Your task to perform on an android device: turn off priority inbox in the gmail app Image 0: 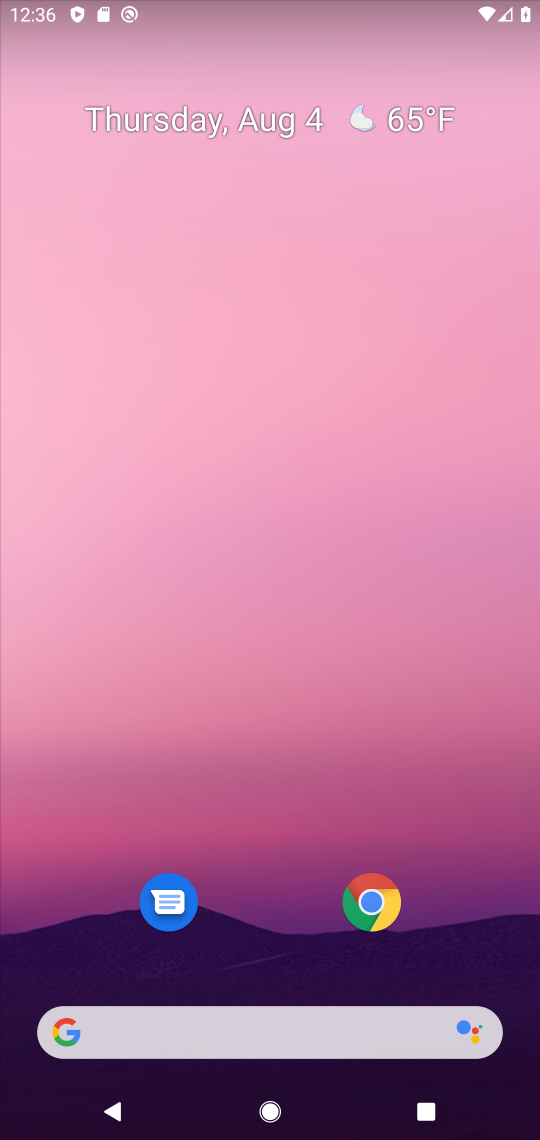
Step 0: drag from (500, 961) to (416, 119)
Your task to perform on an android device: turn off priority inbox in the gmail app Image 1: 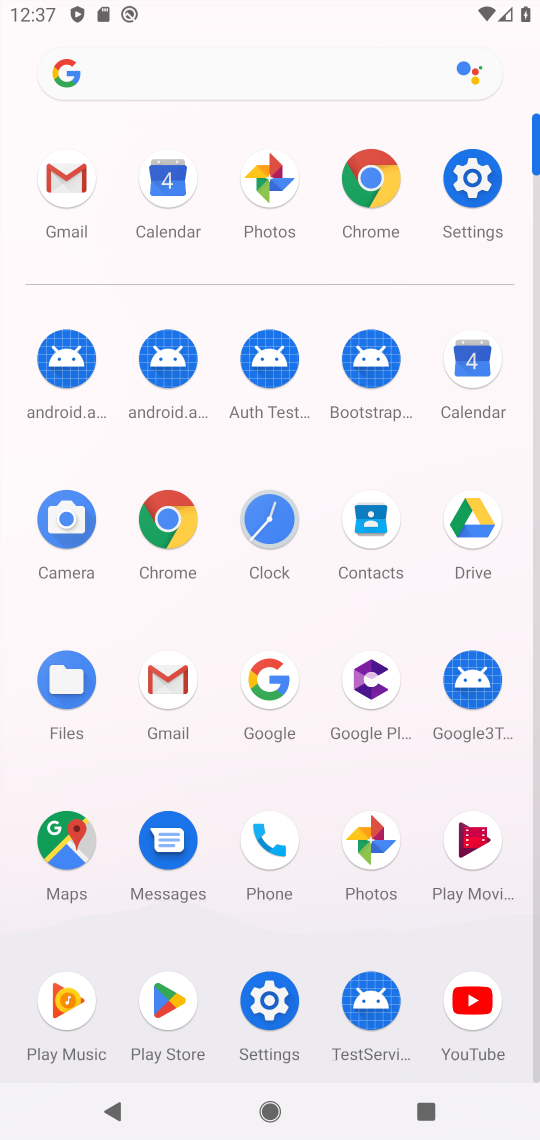
Step 1: click (168, 679)
Your task to perform on an android device: turn off priority inbox in the gmail app Image 2: 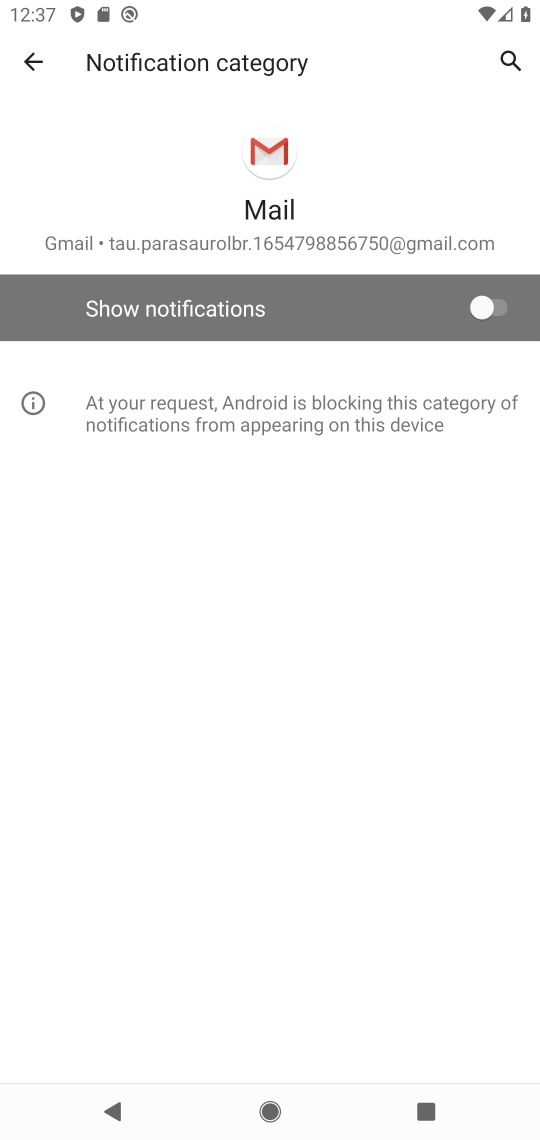
Step 2: press back button
Your task to perform on an android device: turn off priority inbox in the gmail app Image 3: 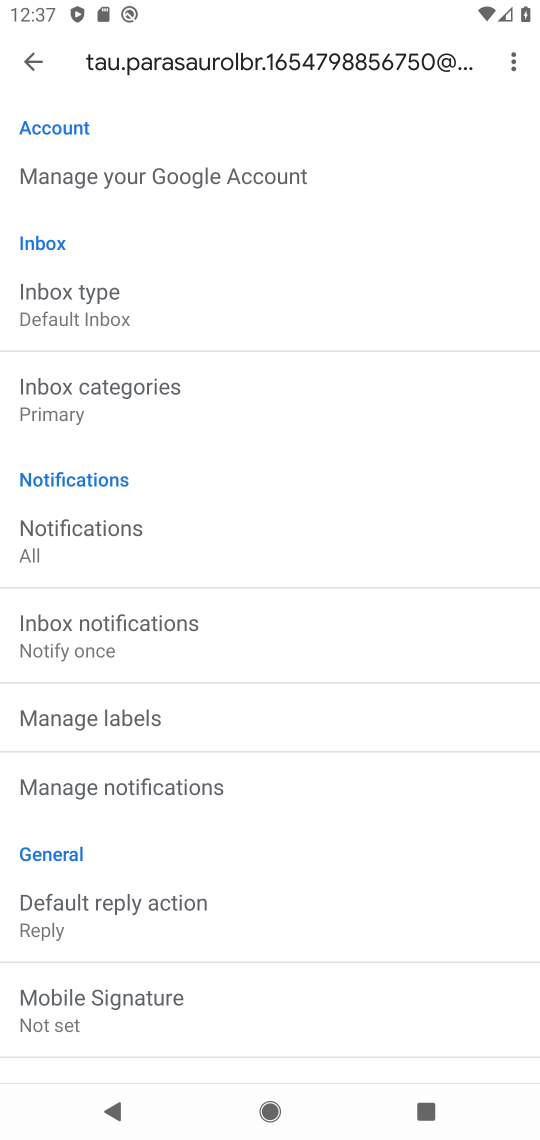
Step 3: click (53, 297)
Your task to perform on an android device: turn off priority inbox in the gmail app Image 4: 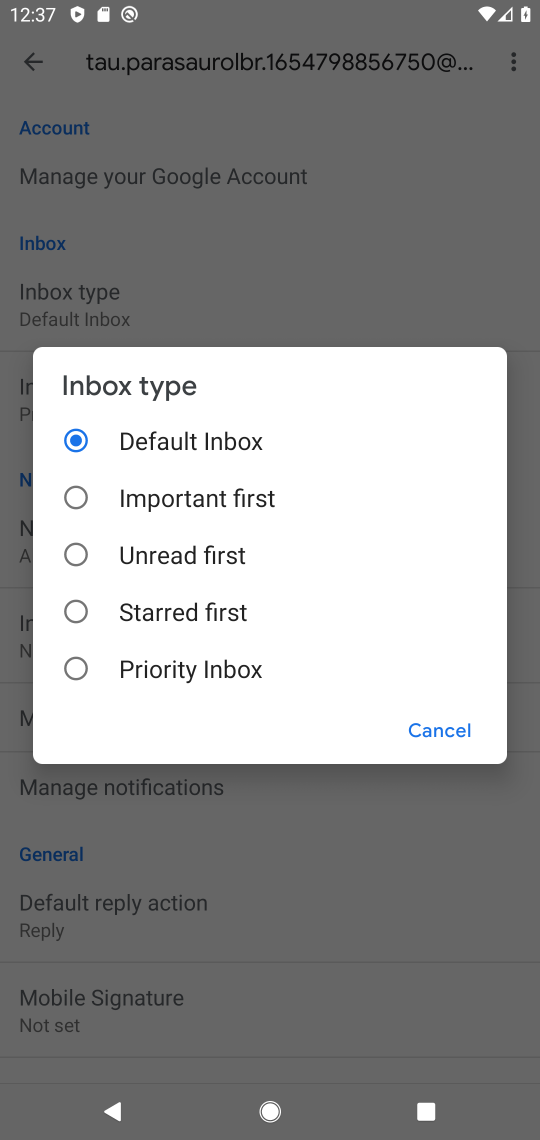
Step 4: task complete